Your task to perform on an android device: Open privacy settings Image 0: 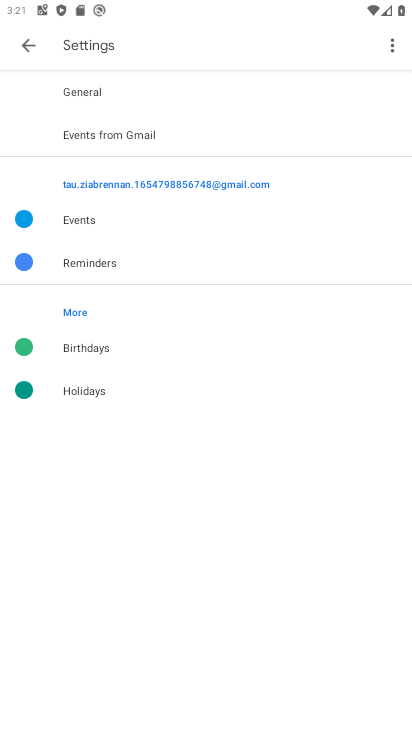
Step 0: press home button
Your task to perform on an android device: Open privacy settings Image 1: 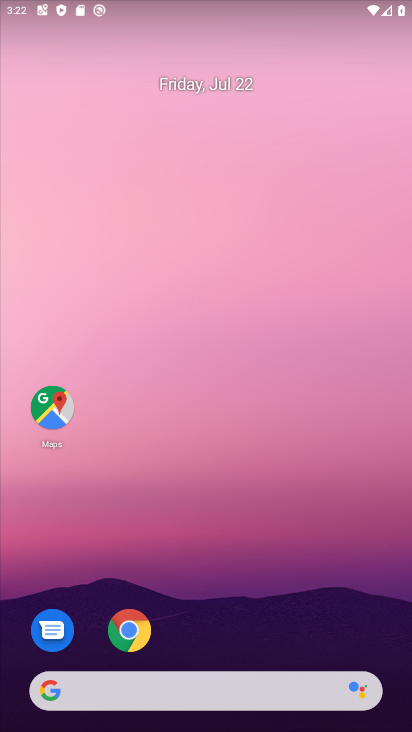
Step 1: click (132, 632)
Your task to perform on an android device: Open privacy settings Image 2: 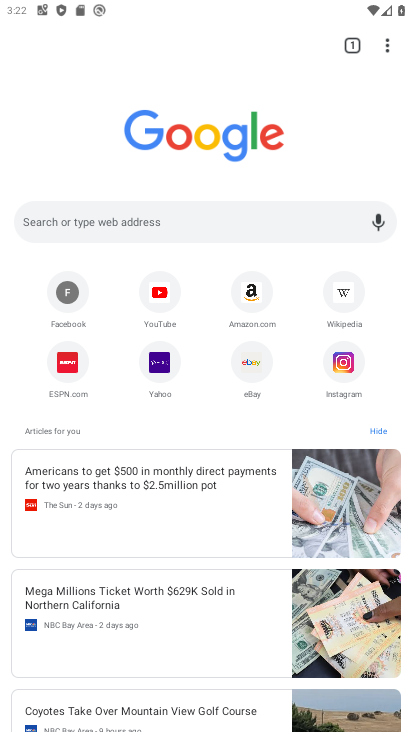
Step 2: click (384, 40)
Your task to perform on an android device: Open privacy settings Image 3: 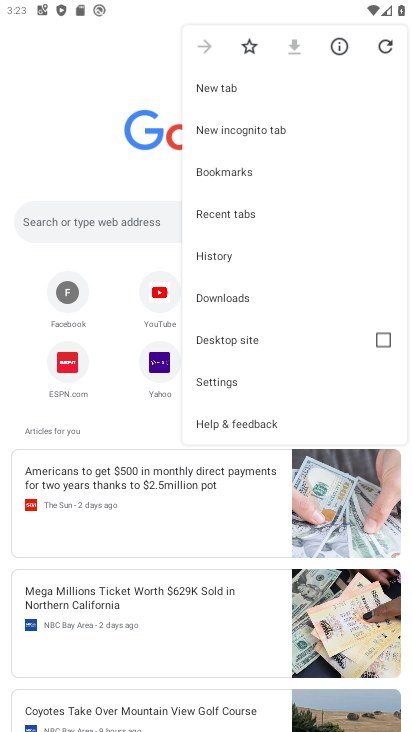
Step 3: click (214, 380)
Your task to perform on an android device: Open privacy settings Image 4: 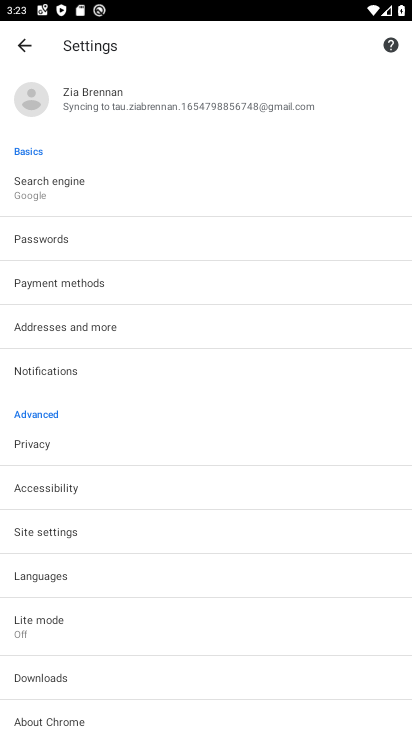
Step 4: click (41, 446)
Your task to perform on an android device: Open privacy settings Image 5: 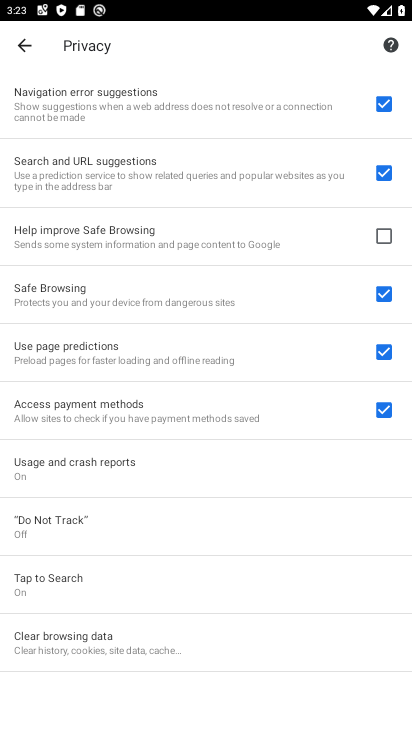
Step 5: task complete